Your task to perform on an android device: How big is a lion? Image 0: 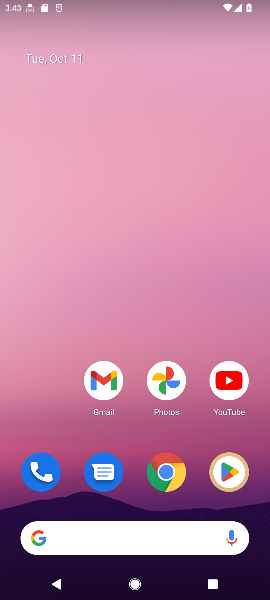
Step 0: click (171, 468)
Your task to perform on an android device: How big is a lion? Image 1: 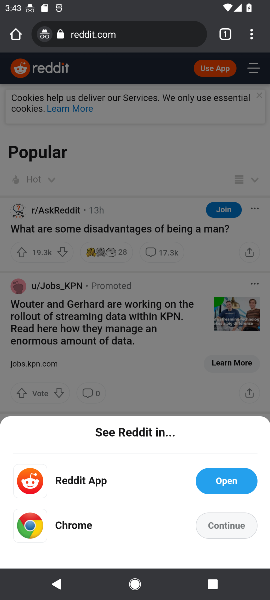
Step 1: click (90, 30)
Your task to perform on an android device: How big is a lion? Image 2: 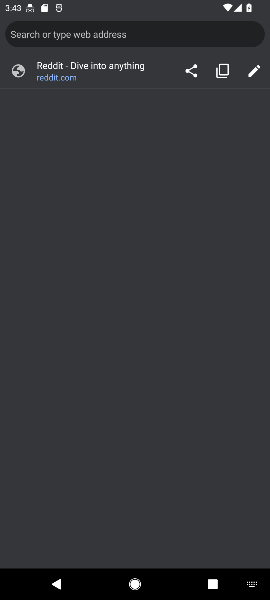
Step 2: type "How big is a lion?"
Your task to perform on an android device: How big is a lion? Image 3: 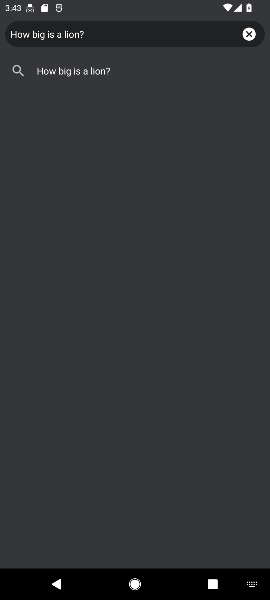
Step 3: click (85, 68)
Your task to perform on an android device: How big is a lion? Image 4: 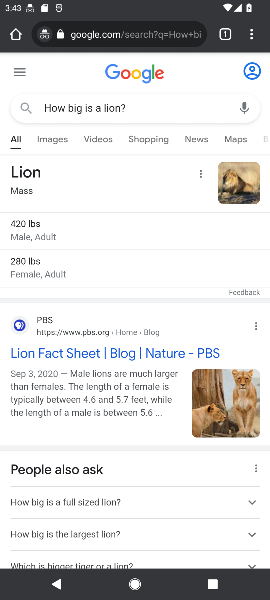
Step 4: task complete